Your task to perform on an android device: Open the phone app and click the voicemail tab. Image 0: 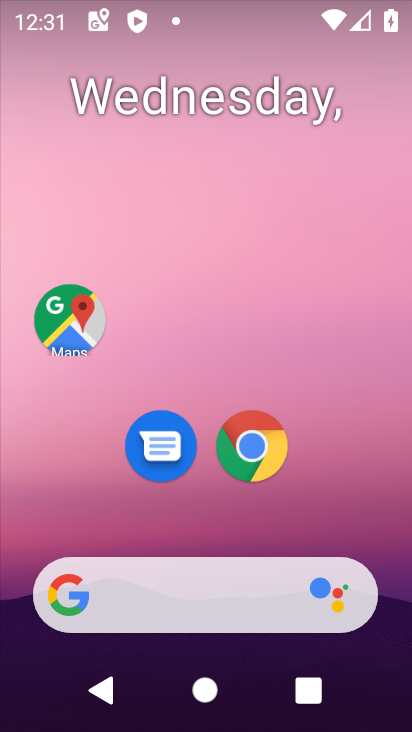
Step 0: drag from (255, 530) to (257, 75)
Your task to perform on an android device: Open the phone app and click the voicemail tab. Image 1: 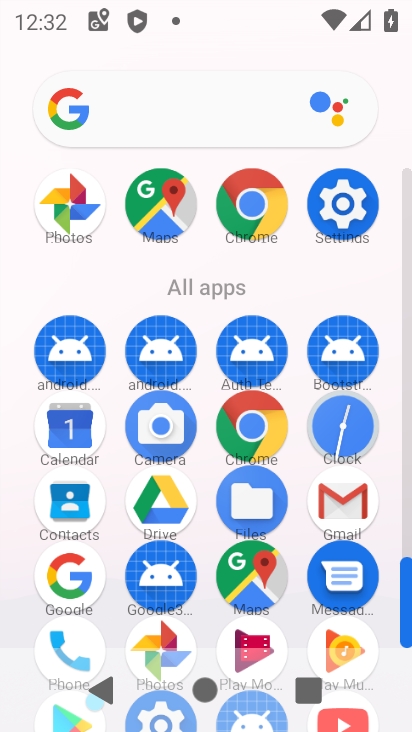
Step 1: drag from (198, 280) to (224, 43)
Your task to perform on an android device: Open the phone app and click the voicemail tab. Image 2: 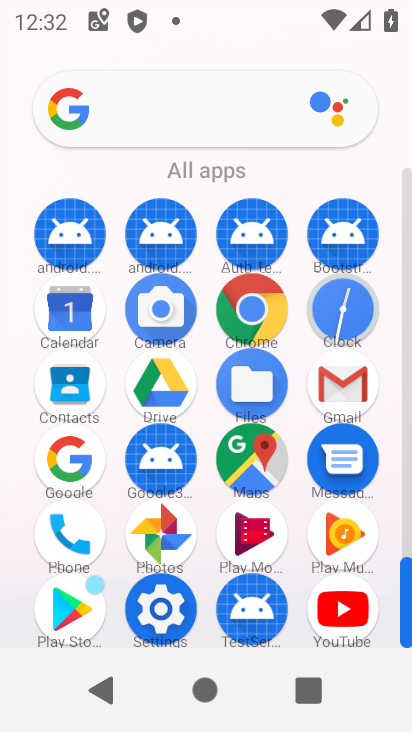
Step 2: click (58, 527)
Your task to perform on an android device: Open the phone app and click the voicemail tab. Image 3: 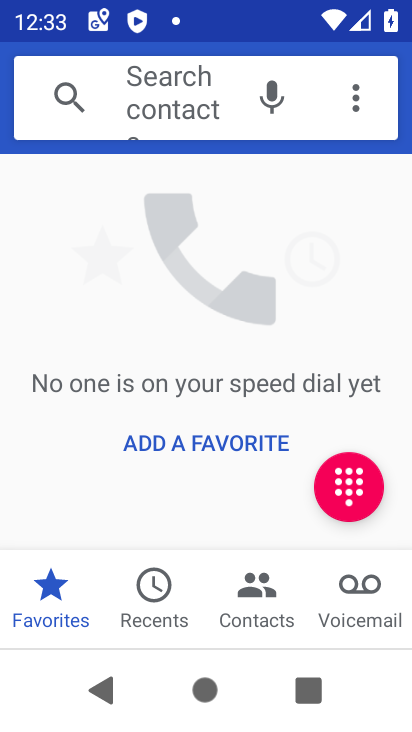
Step 3: click (351, 615)
Your task to perform on an android device: Open the phone app and click the voicemail tab. Image 4: 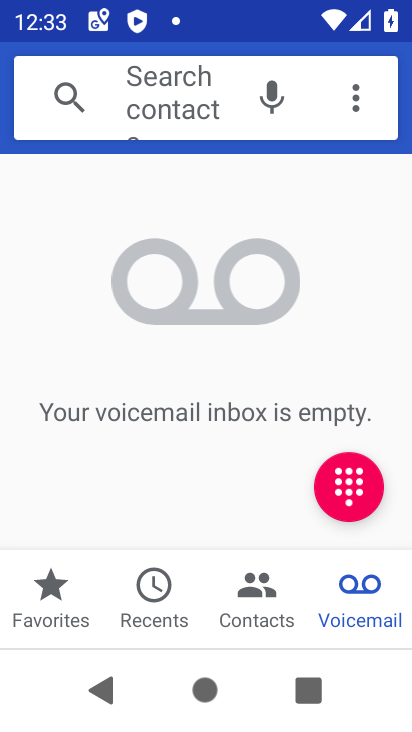
Step 4: task complete